Your task to perform on an android device: move an email to a new category in the gmail app Image 0: 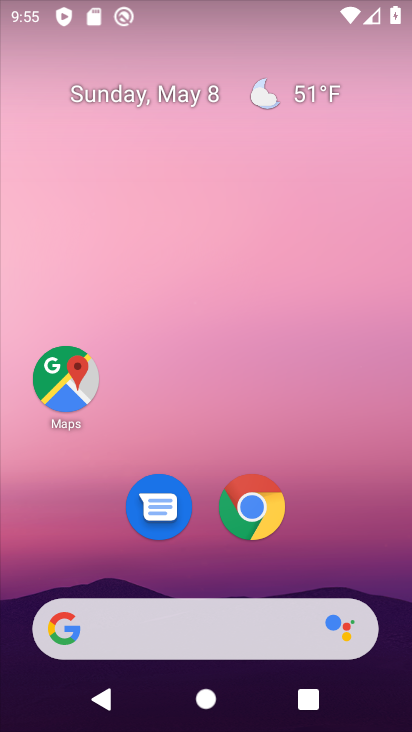
Step 0: drag from (216, 572) to (201, 45)
Your task to perform on an android device: move an email to a new category in the gmail app Image 1: 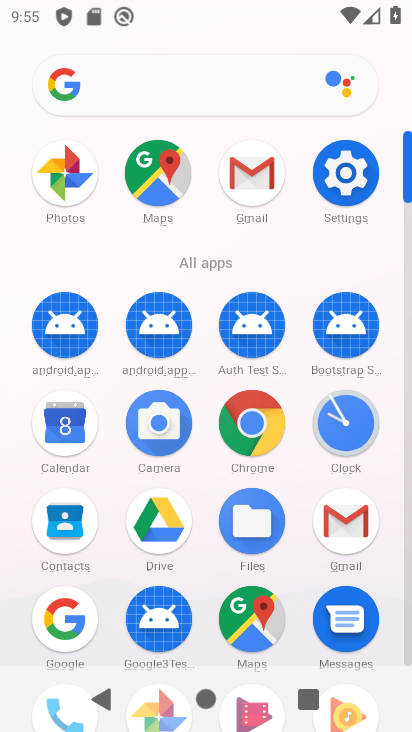
Step 1: click (247, 169)
Your task to perform on an android device: move an email to a new category in the gmail app Image 2: 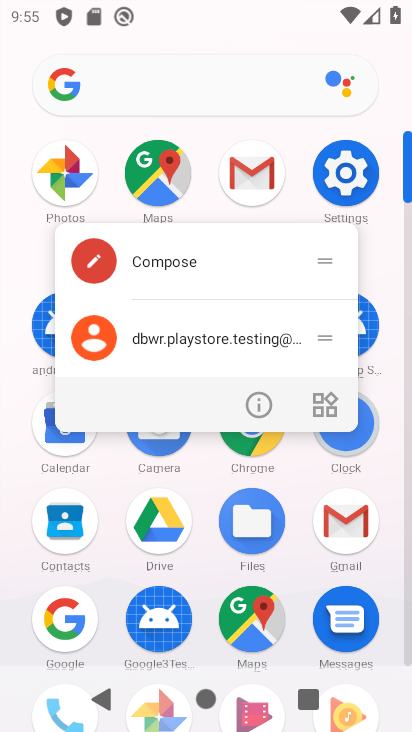
Step 2: click (255, 166)
Your task to perform on an android device: move an email to a new category in the gmail app Image 3: 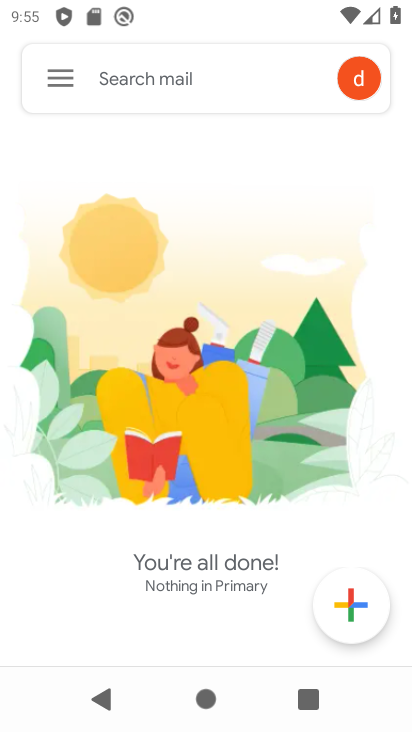
Step 3: click (60, 78)
Your task to perform on an android device: move an email to a new category in the gmail app Image 4: 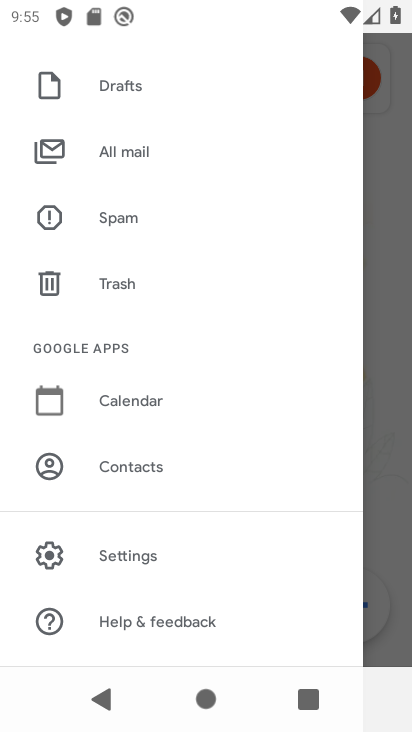
Step 4: click (100, 147)
Your task to perform on an android device: move an email to a new category in the gmail app Image 5: 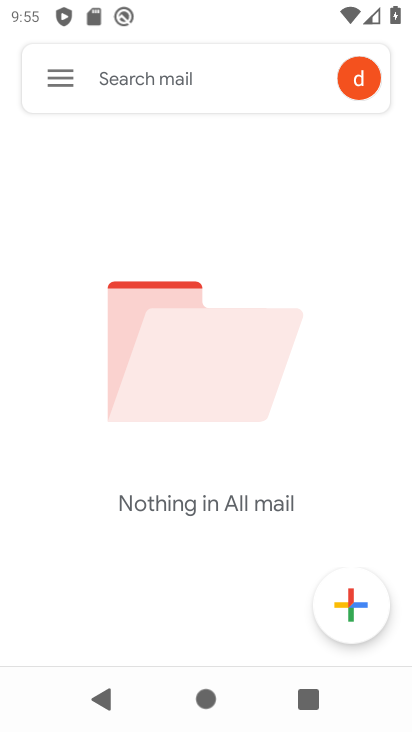
Step 5: task complete